Your task to perform on an android device: change notifications settings Image 0: 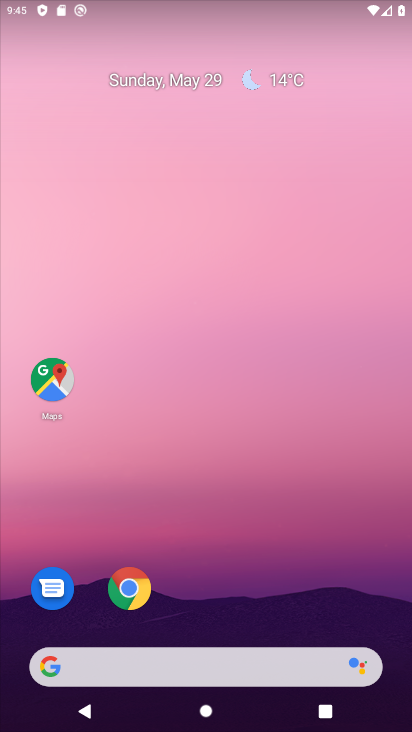
Step 0: drag from (272, 680) to (93, 28)
Your task to perform on an android device: change notifications settings Image 1: 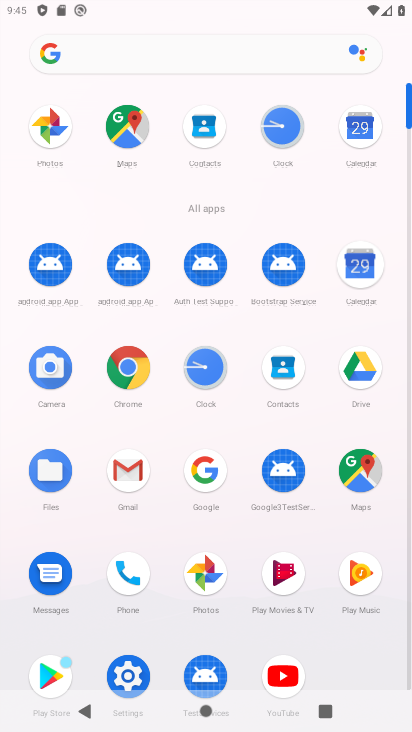
Step 1: click (131, 678)
Your task to perform on an android device: change notifications settings Image 2: 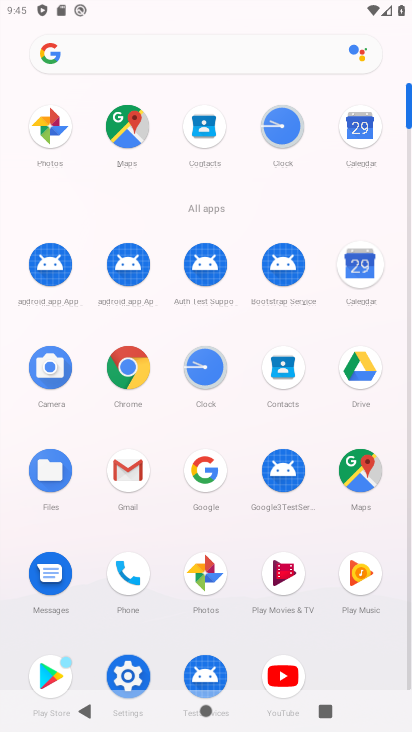
Step 2: click (130, 678)
Your task to perform on an android device: change notifications settings Image 3: 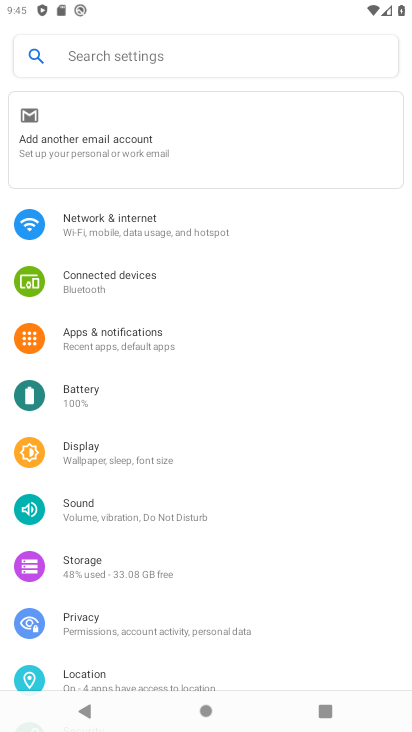
Step 3: click (97, 336)
Your task to perform on an android device: change notifications settings Image 4: 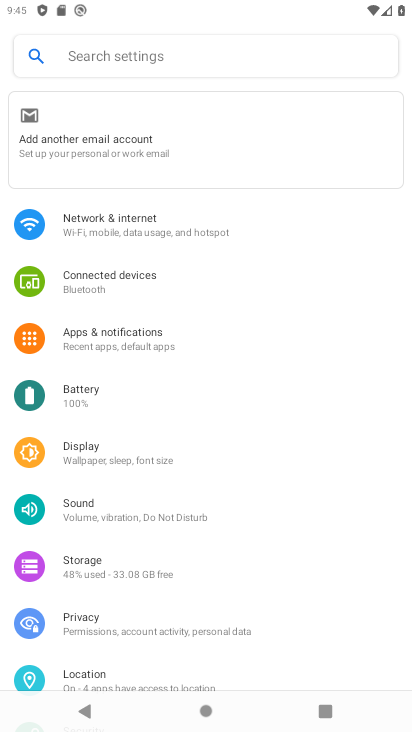
Step 4: click (97, 336)
Your task to perform on an android device: change notifications settings Image 5: 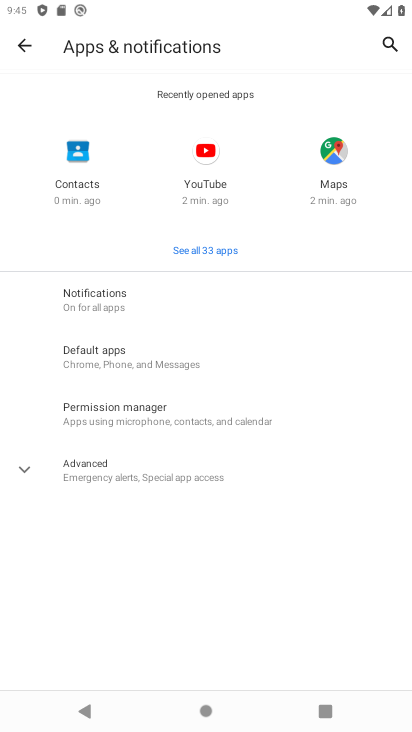
Step 5: click (80, 296)
Your task to perform on an android device: change notifications settings Image 6: 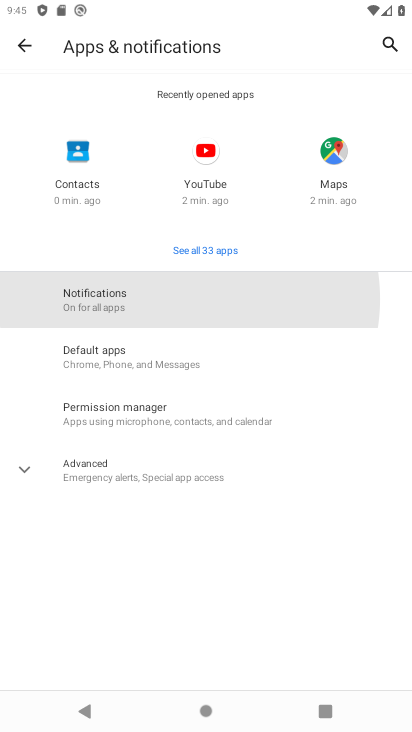
Step 6: click (80, 296)
Your task to perform on an android device: change notifications settings Image 7: 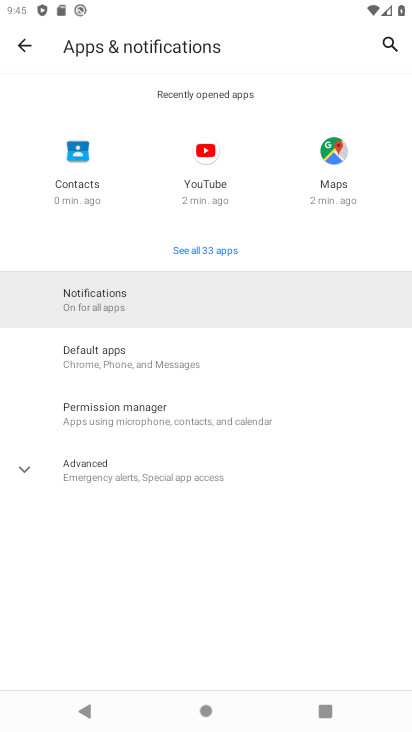
Step 7: click (80, 296)
Your task to perform on an android device: change notifications settings Image 8: 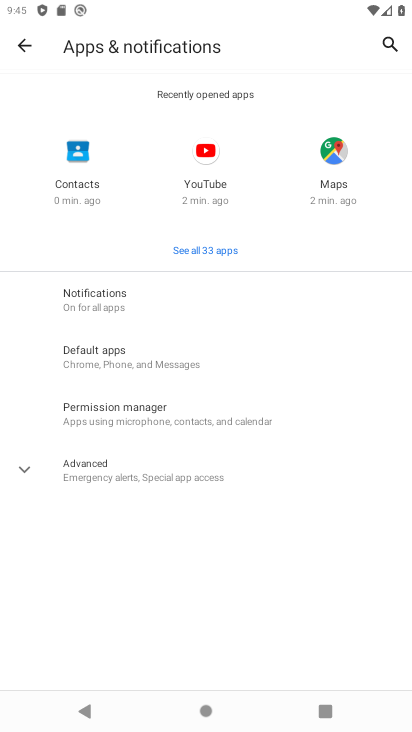
Step 8: click (79, 297)
Your task to perform on an android device: change notifications settings Image 9: 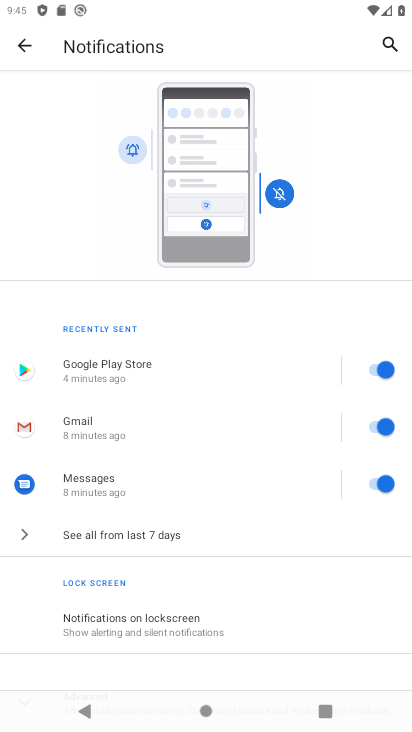
Step 9: drag from (148, 497) to (161, 308)
Your task to perform on an android device: change notifications settings Image 10: 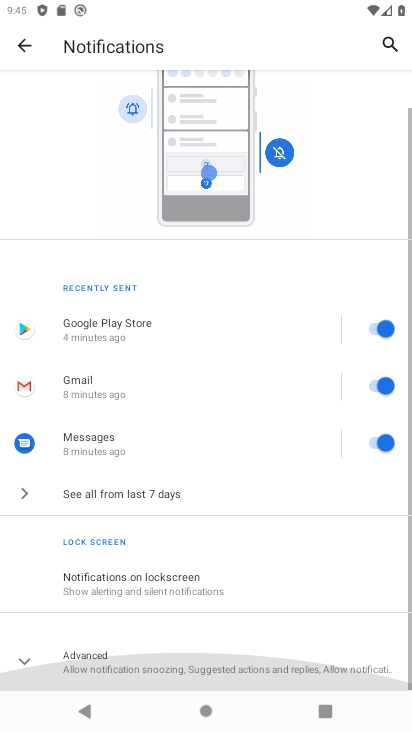
Step 10: drag from (206, 491) to (215, 242)
Your task to perform on an android device: change notifications settings Image 11: 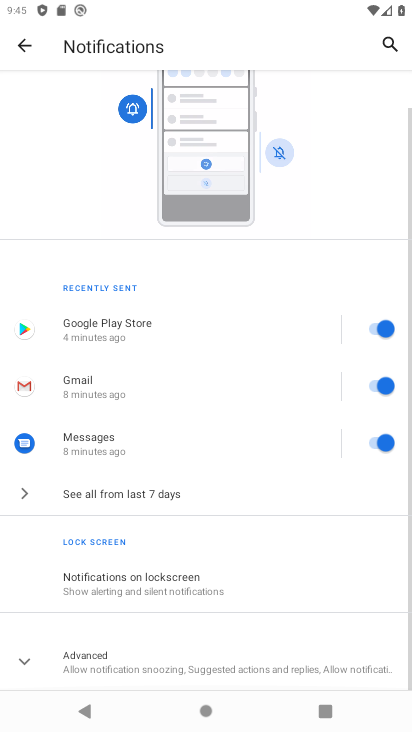
Step 11: click (186, 138)
Your task to perform on an android device: change notifications settings Image 12: 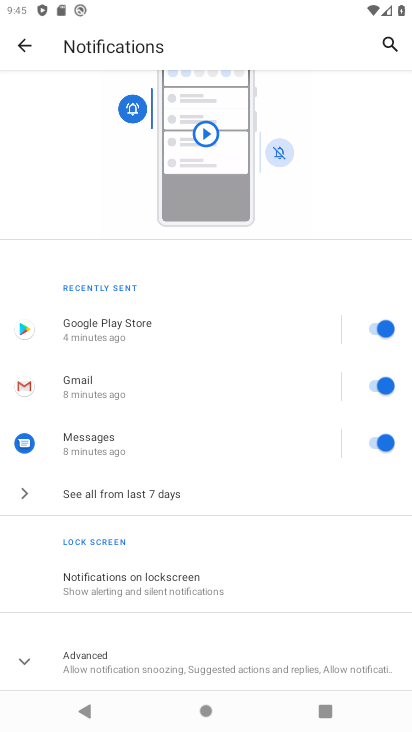
Step 12: click (90, 663)
Your task to perform on an android device: change notifications settings Image 13: 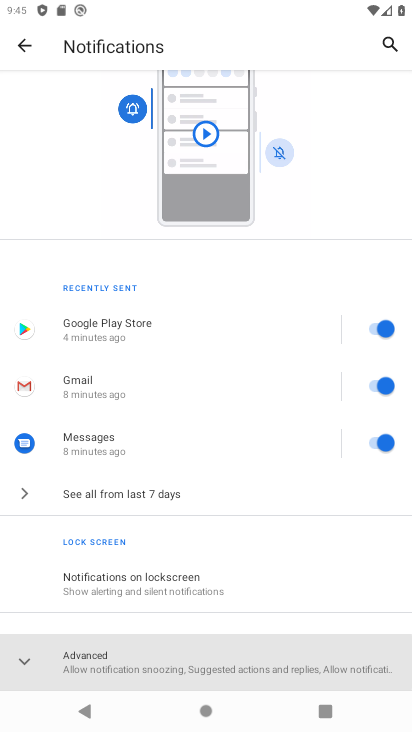
Step 13: click (92, 662)
Your task to perform on an android device: change notifications settings Image 14: 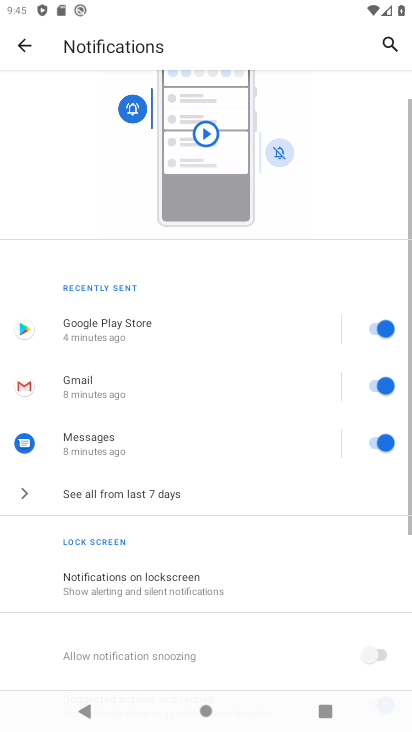
Step 14: click (96, 662)
Your task to perform on an android device: change notifications settings Image 15: 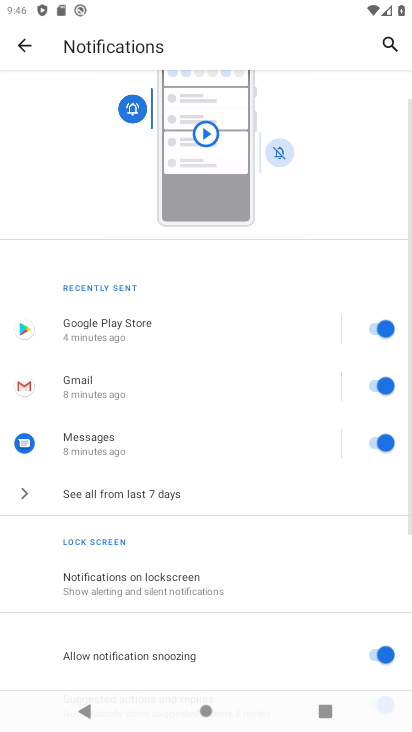
Step 15: drag from (248, 432) to (204, 123)
Your task to perform on an android device: change notifications settings Image 16: 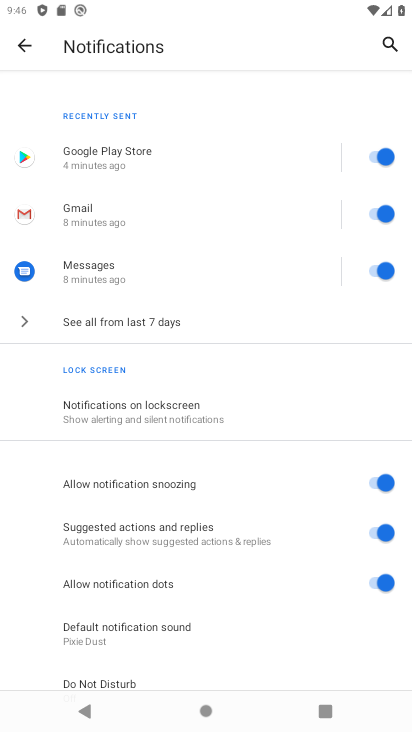
Step 16: drag from (179, 553) to (142, 299)
Your task to perform on an android device: change notifications settings Image 17: 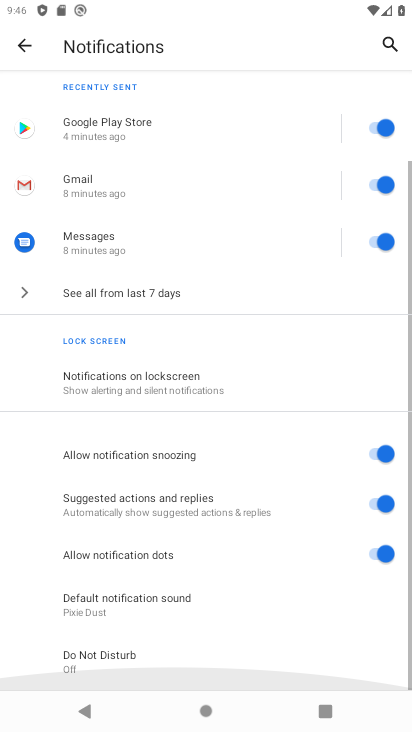
Step 17: drag from (218, 482) to (192, 203)
Your task to perform on an android device: change notifications settings Image 18: 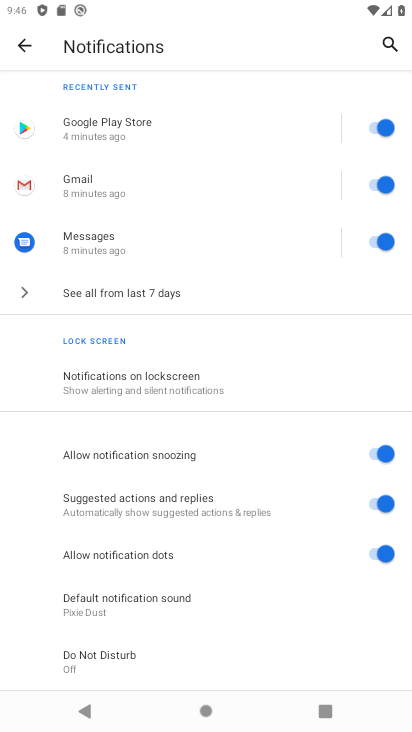
Step 18: click (376, 128)
Your task to perform on an android device: change notifications settings Image 19: 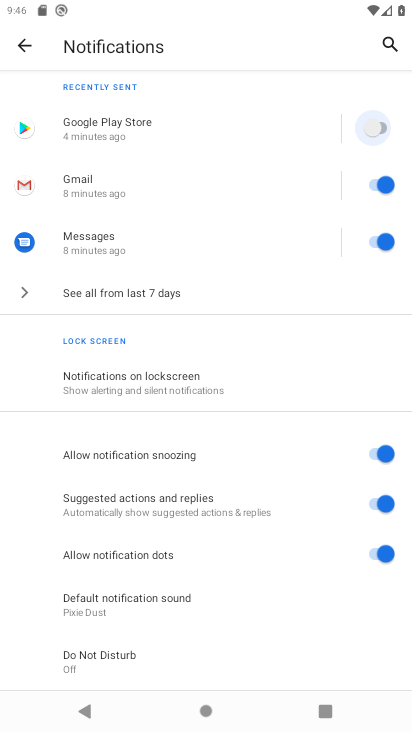
Step 19: click (383, 186)
Your task to perform on an android device: change notifications settings Image 20: 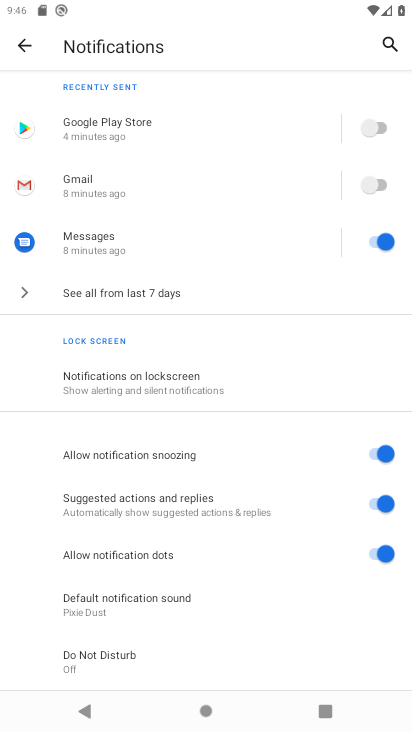
Step 20: click (387, 182)
Your task to perform on an android device: change notifications settings Image 21: 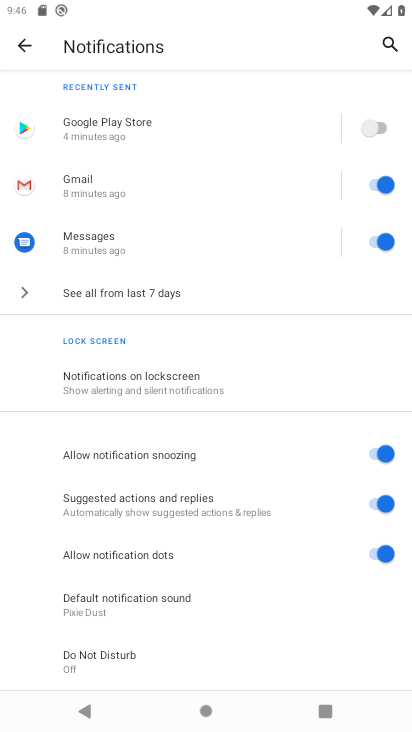
Step 21: click (389, 239)
Your task to perform on an android device: change notifications settings Image 22: 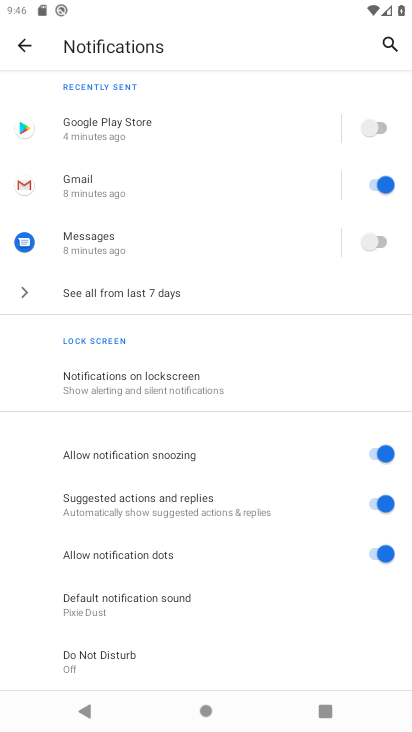
Step 22: click (390, 188)
Your task to perform on an android device: change notifications settings Image 23: 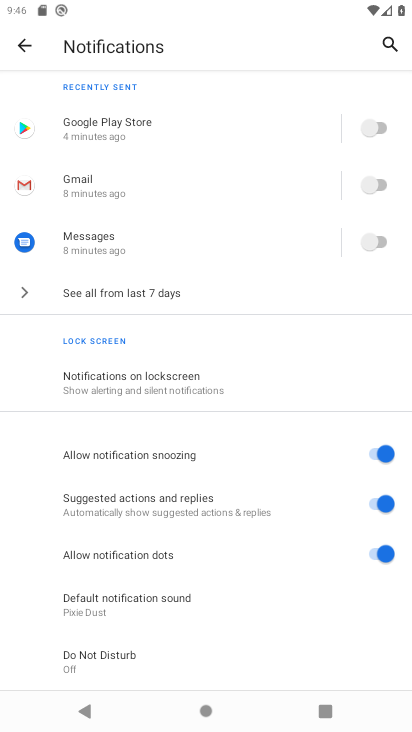
Step 23: task complete